Your task to perform on an android device: Go to internet settings Image 0: 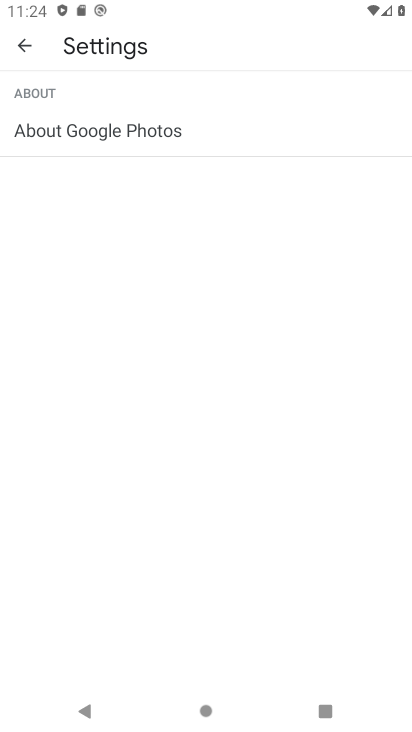
Step 0: press home button
Your task to perform on an android device: Go to internet settings Image 1: 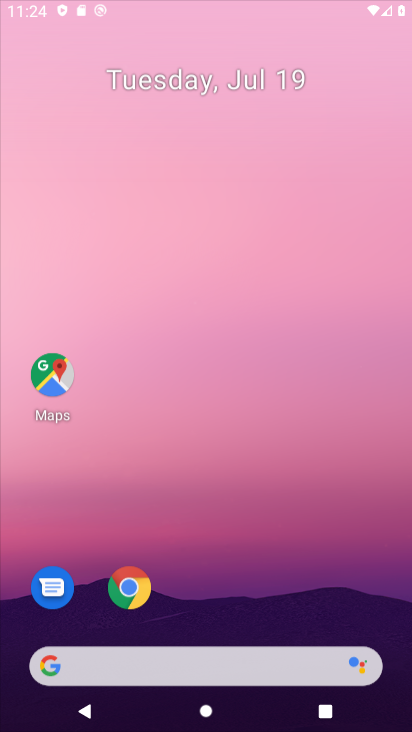
Step 1: drag from (362, 637) to (179, 11)
Your task to perform on an android device: Go to internet settings Image 2: 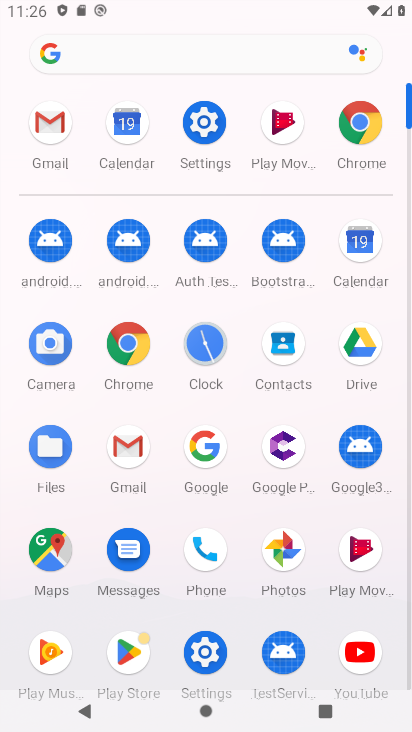
Step 2: click (201, 653)
Your task to perform on an android device: Go to internet settings Image 3: 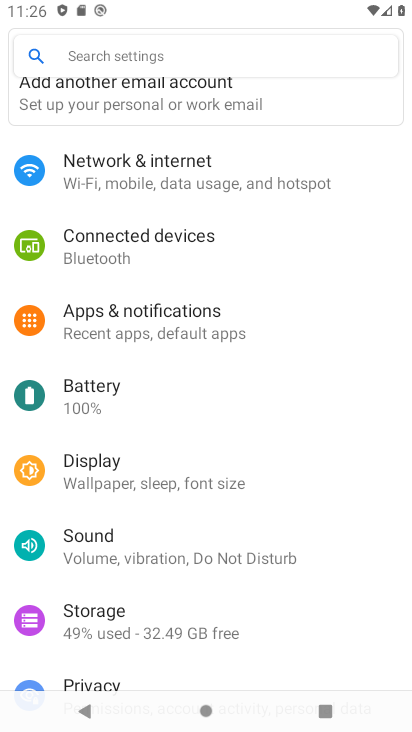
Step 3: click (136, 173)
Your task to perform on an android device: Go to internet settings Image 4: 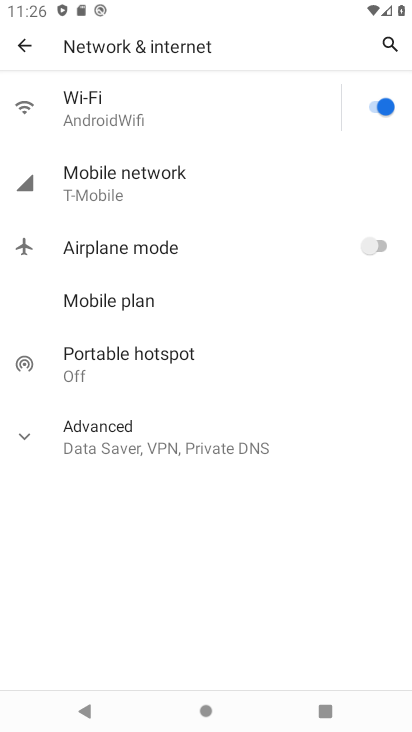
Step 4: task complete